Your task to perform on an android device: turn on data saver in the chrome app Image 0: 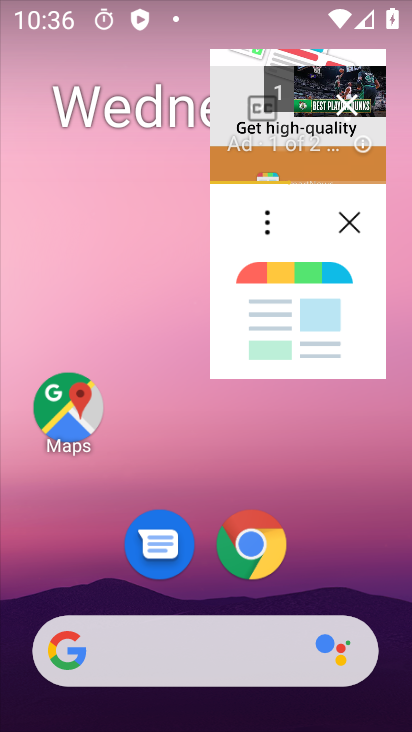
Step 0: click (368, 562)
Your task to perform on an android device: turn on data saver in the chrome app Image 1: 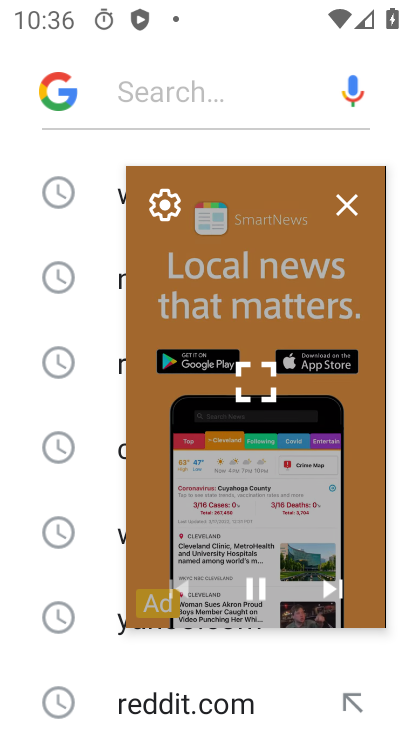
Step 1: click (363, 205)
Your task to perform on an android device: turn on data saver in the chrome app Image 2: 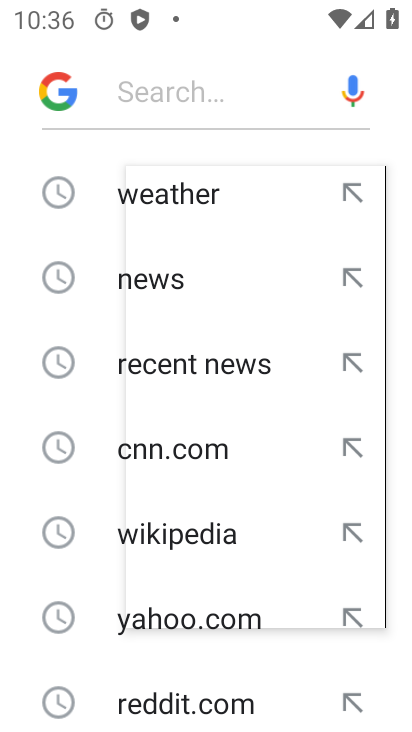
Step 2: press home button
Your task to perform on an android device: turn on data saver in the chrome app Image 3: 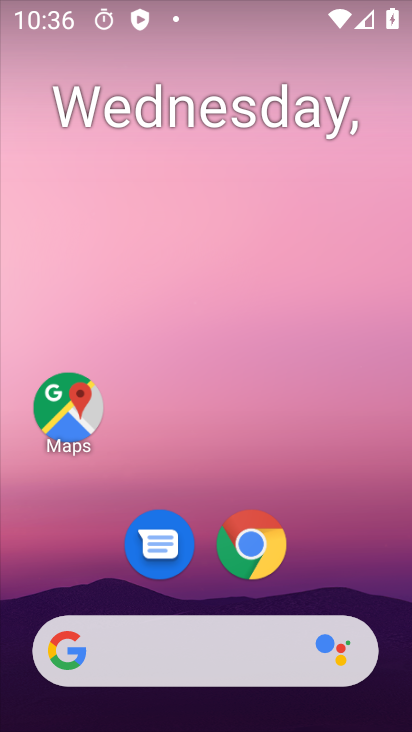
Step 3: press home button
Your task to perform on an android device: turn on data saver in the chrome app Image 4: 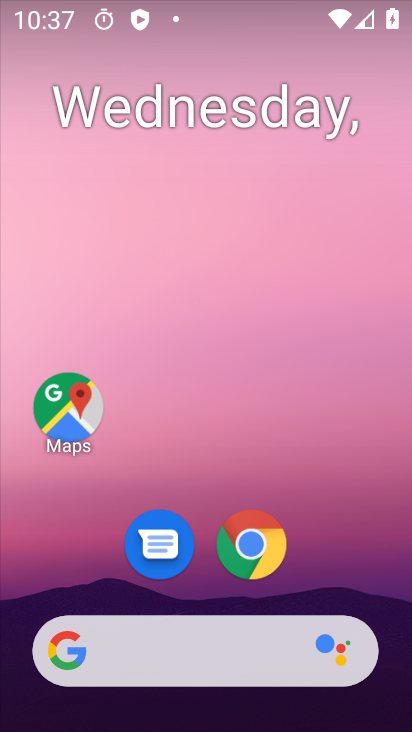
Step 4: drag from (296, 675) to (302, 157)
Your task to perform on an android device: turn on data saver in the chrome app Image 5: 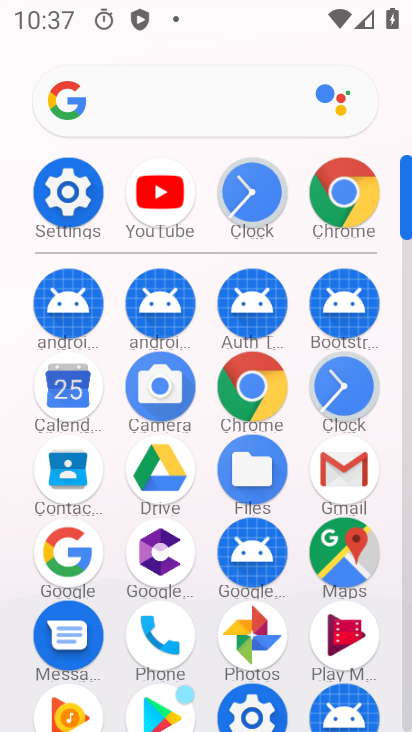
Step 5: click (338, 211)
Your task to perform on an android device: turn on data saver in the chrome app Image 6: 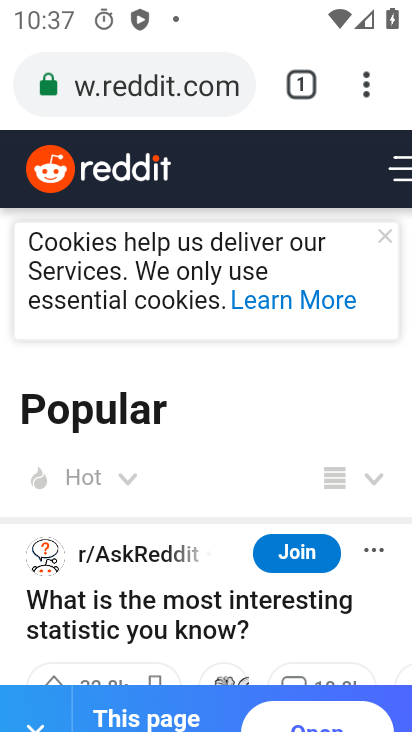
Step 6: click (370, 88)
Your task to perform on an android device: turn on data saver in the chrome app Image 7: 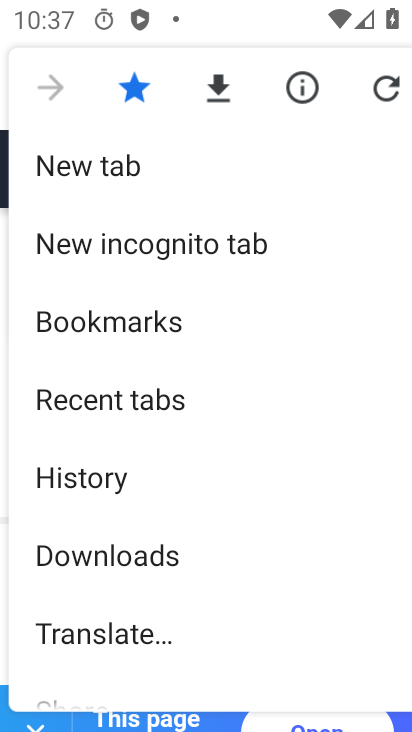
Step 7: drag from (136, 613) to (195, 358)
Your task to perform on an android device: turn on data saver in the chrome app Image 8: 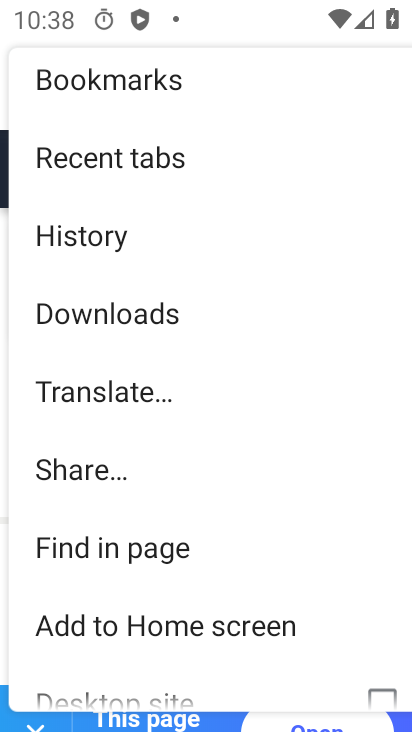
Step 8: drag from (93, 531) to (126, 385)
Your task to perform on an android device: turn on data saver in the chrome app Image 9: 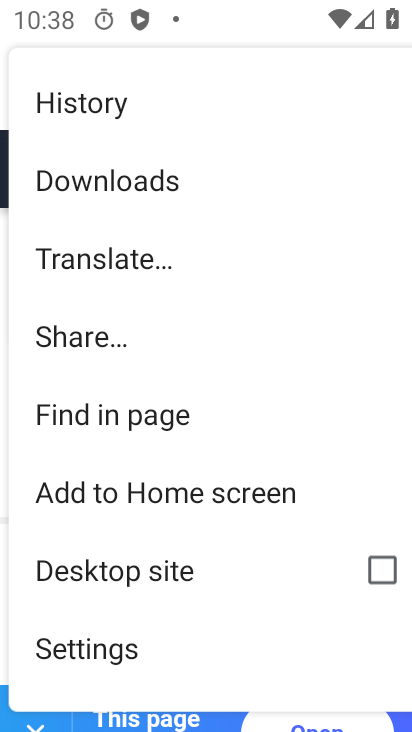
Step 9: click (128, 647)
Your task to perform on an android device: turn on data saver in the chrome app Image 10: 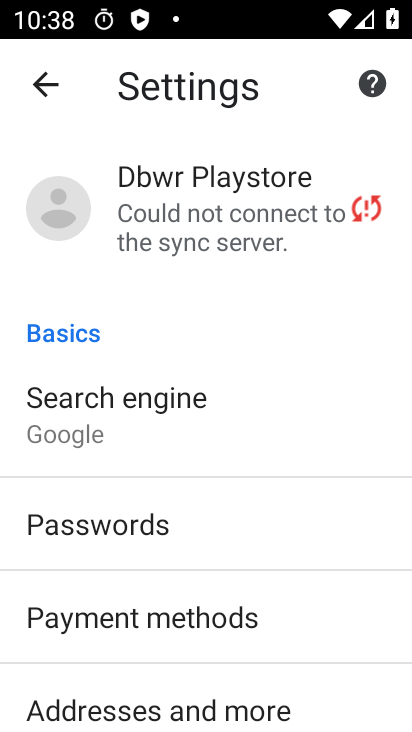
Step 10: drag from (308, 714) to (335, 181)
Your task to perform on an android device: turn on data saver in the chrome app Image 11: 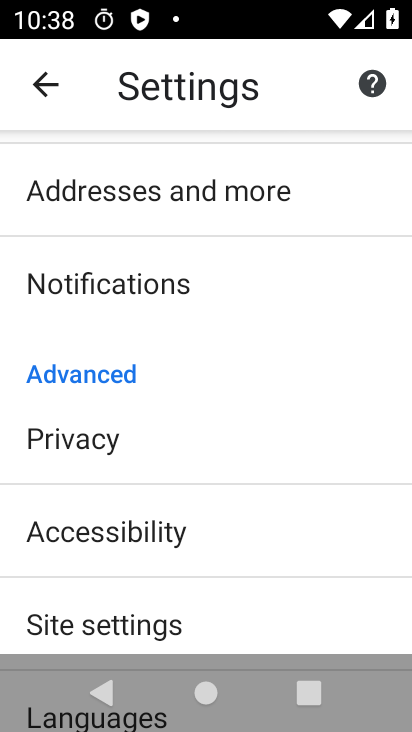
Step 11: drag from (101, 626) to (142, 297)
Your task to perform on an android device: turn on data saver in the chrome app Image 12: 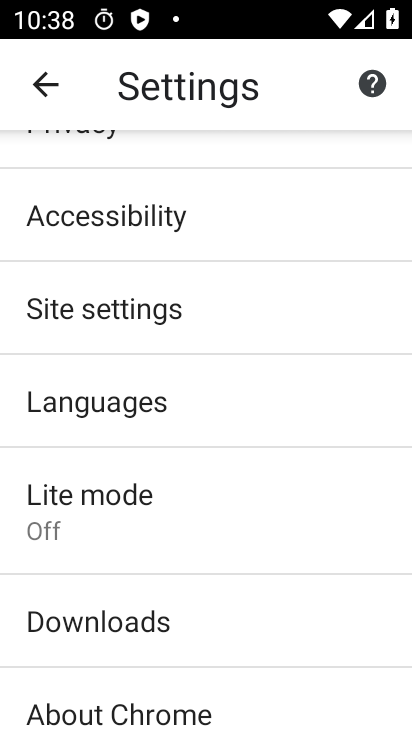
Step 12: click (105, 519)
Your task to perform on an android device: turn on data saver in the chrome app Image 13: 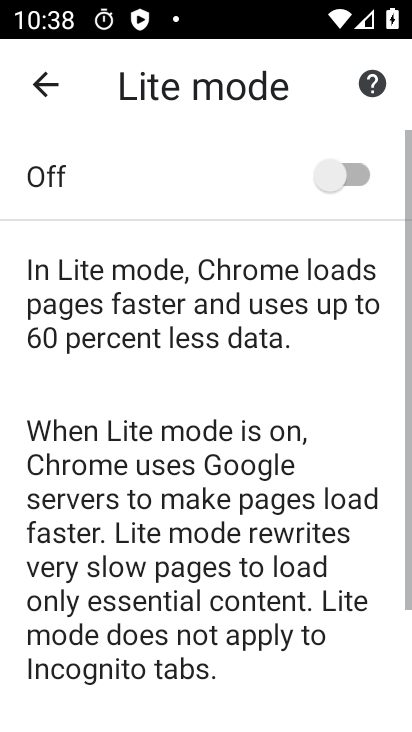
Step 13: click (348, 170)
Your task to perform on an android device: turn on data saver in the chrome app Image 14: 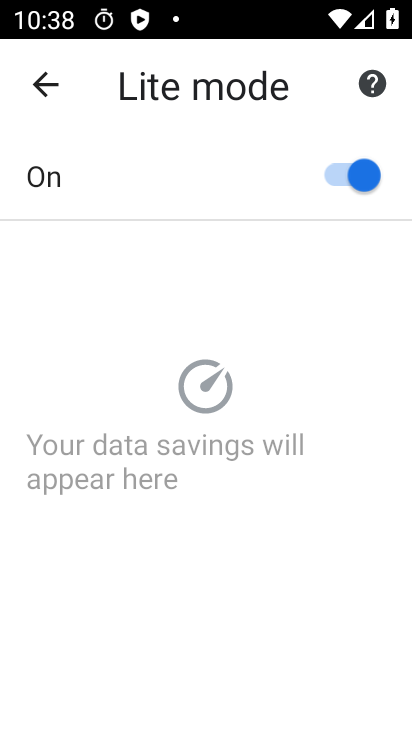
Step 14: task complete